Your task to perform on an android device: change the clock display to digital Image 0: 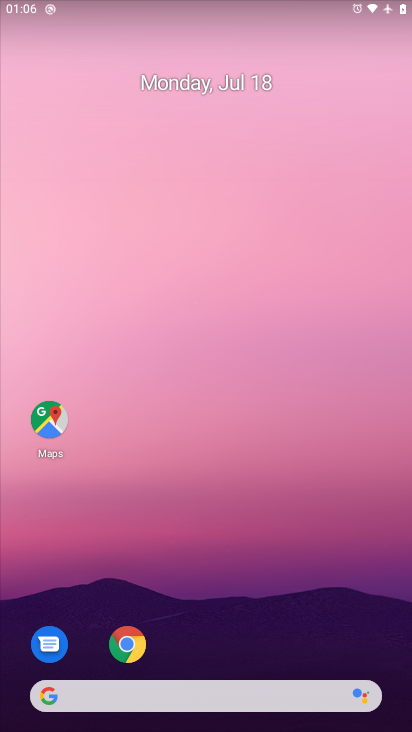
Step 0: press home button
Your task to perform on an android device: change the clock display to digital Image 1: 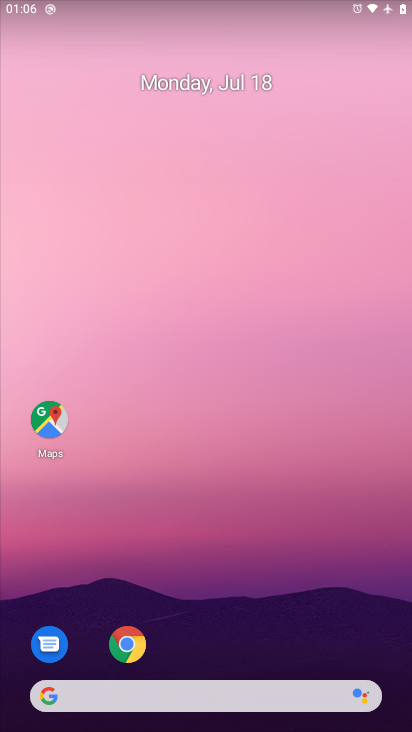
Step 1: drag from (238, 658) to (271, 185)
Your task to perform on an android device: change the clock display to digital Image 2: 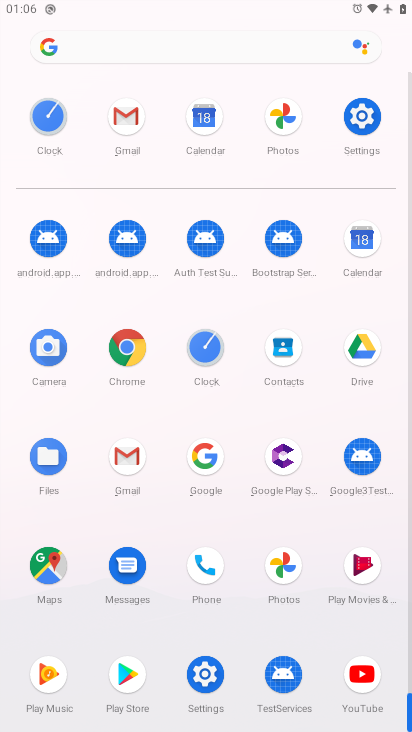
Step 2: click (216, 356)
Your task to perform on an android device: change the clock display to digital Image 3: 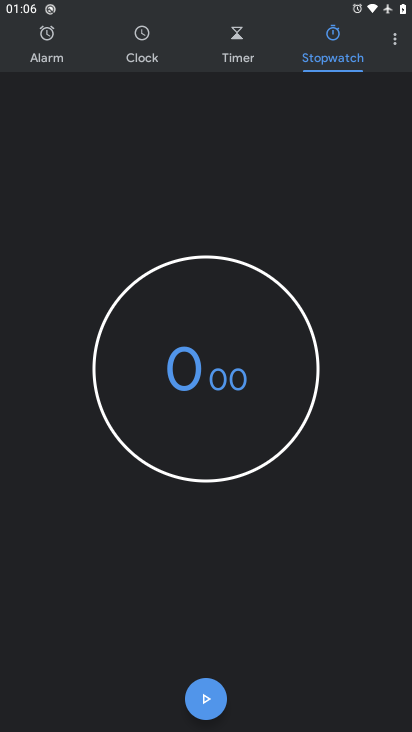
Step 3: click (393, 44)
Your task to perform on an android device: change the clock display to digital Image 4: 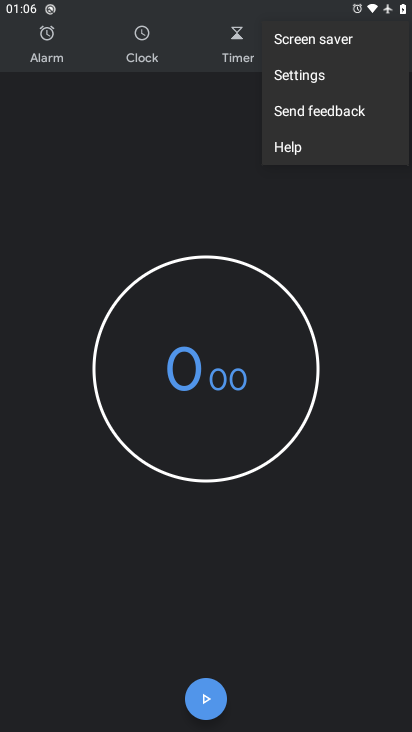
Step 4: click (294, 72)
Your task to perform on an android device: change the clock display to digital Image 5: 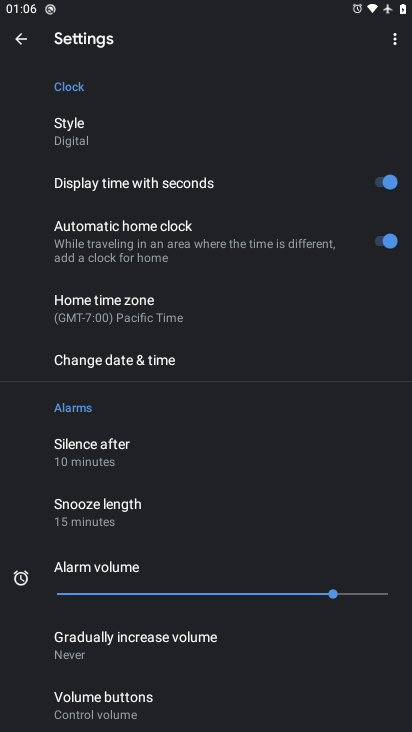
Step 5: click (61, 128)
Your task to perform on an android device: change the clock display to digital Image 6: 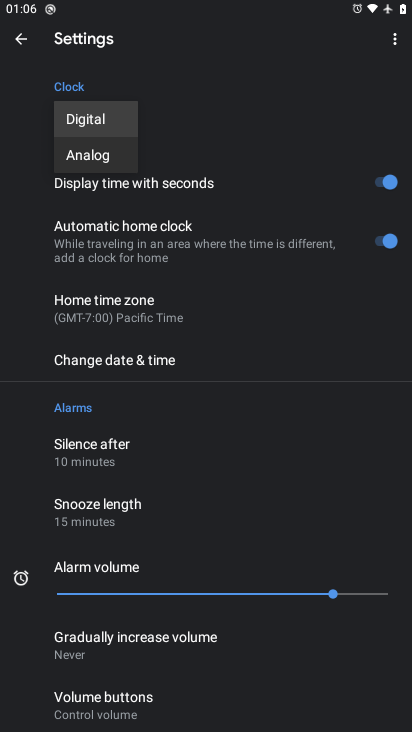
Step 6: task complete